Your task to perform on an android device: Search for the new Nike Air Max 270 on Nike.com Image 0: 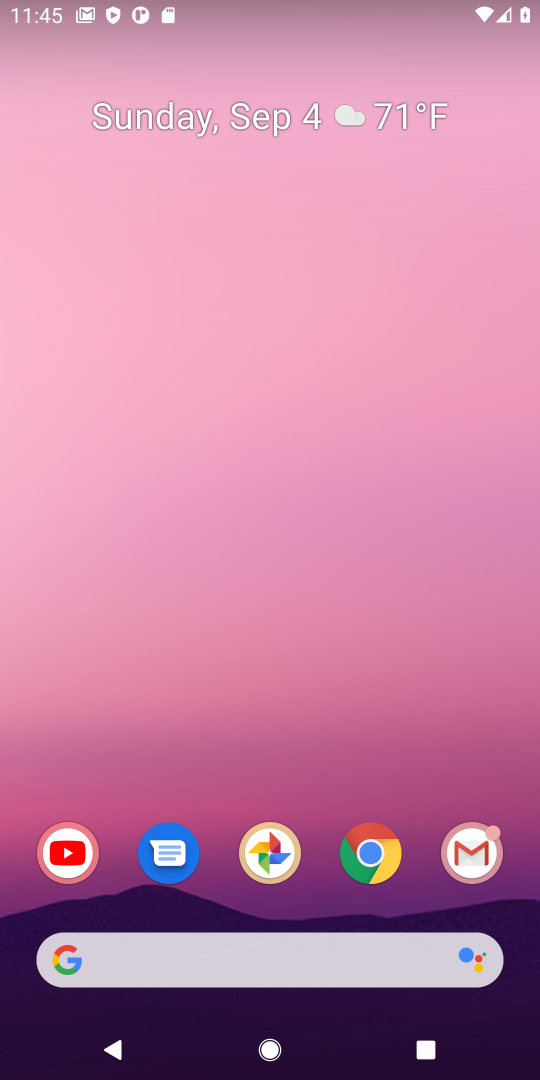
Step 0: click (383, 849)
Your task to perform on an android device: Search for the new Nike Air Max 270 on Nike.com Image 1: 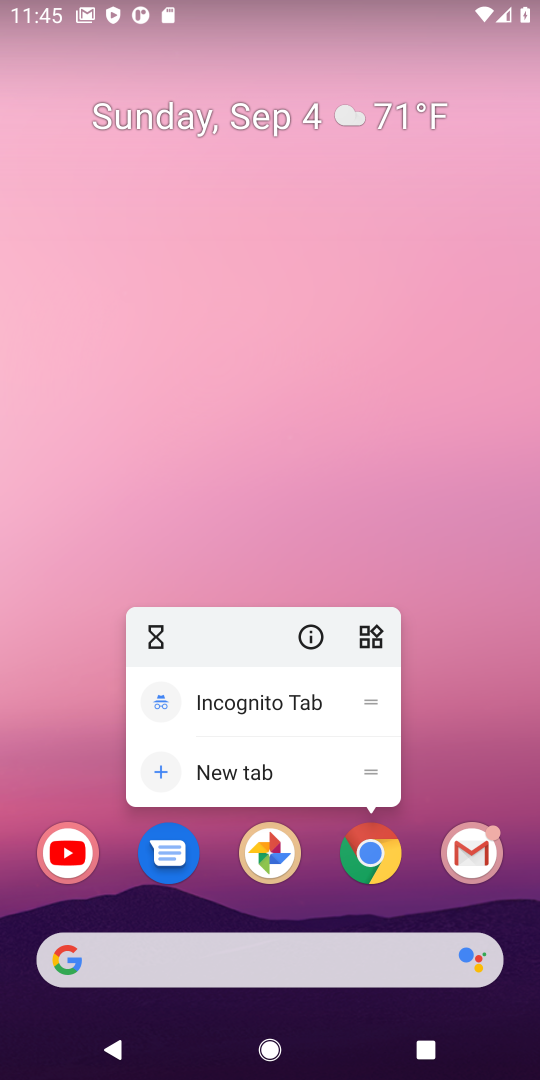
Step 1: click (374, 847)
Your task to perform on an android device: Search for the new Nike Air Max 270 on Nike.com Image 2: 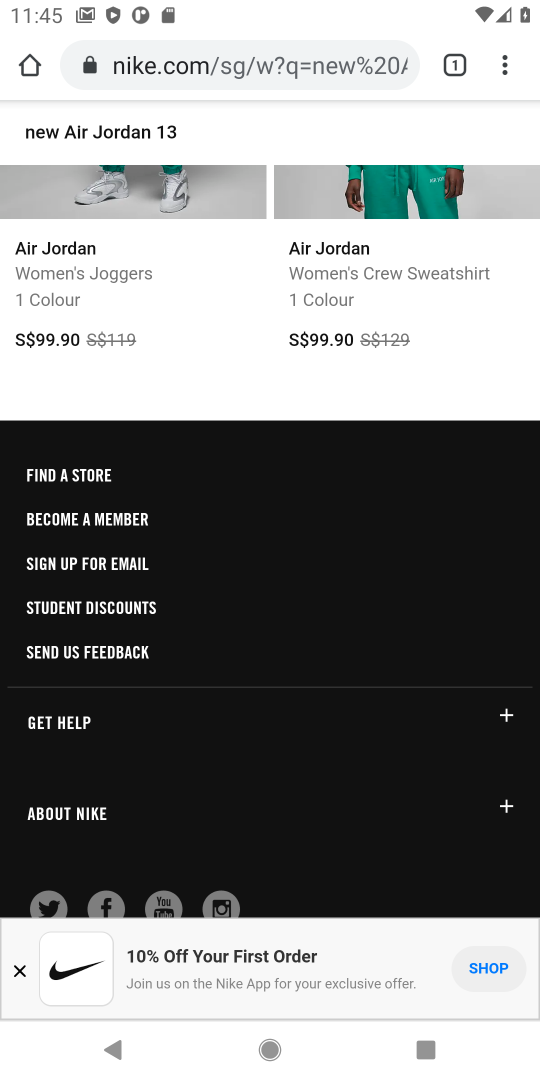
Step 2: click (317, 67)
Your task to perform on an android device: Search for the new Nike Air Max 270 on Nike.com Image 3: 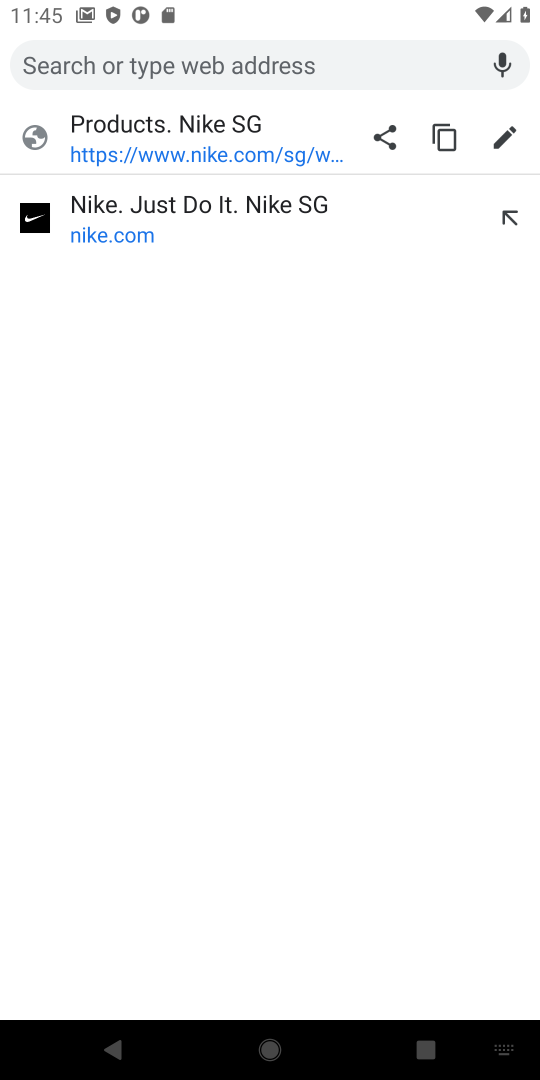
Step 3: type "Nike.com"
Your task to perform on an android device: Search for the new Nike Air Max 270 on Nike.com Image 4: 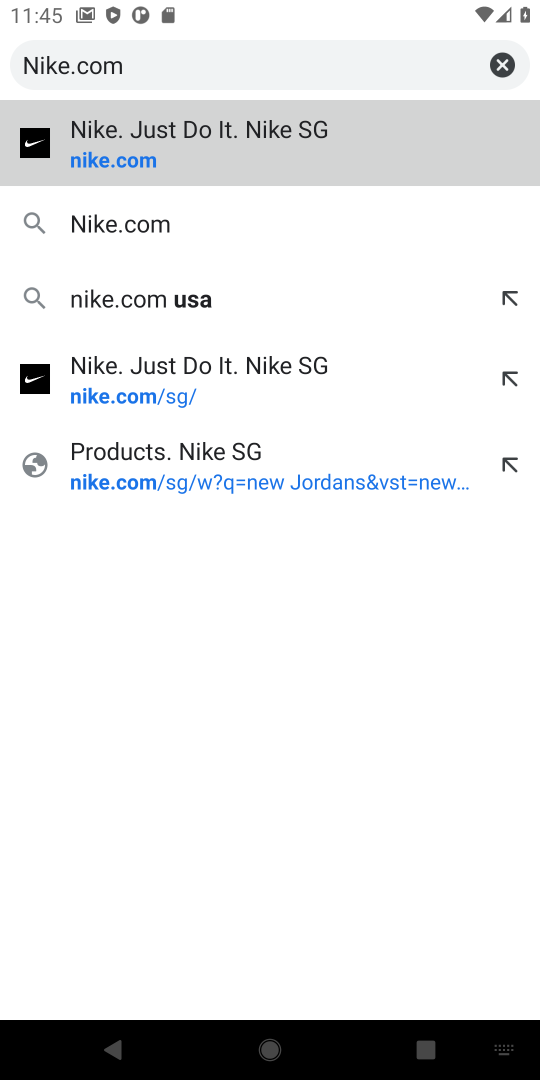
Step 4: press enter
Your task to perform on an android device: Search for the new Nike Air Max 270 on Nike.com Image 5: 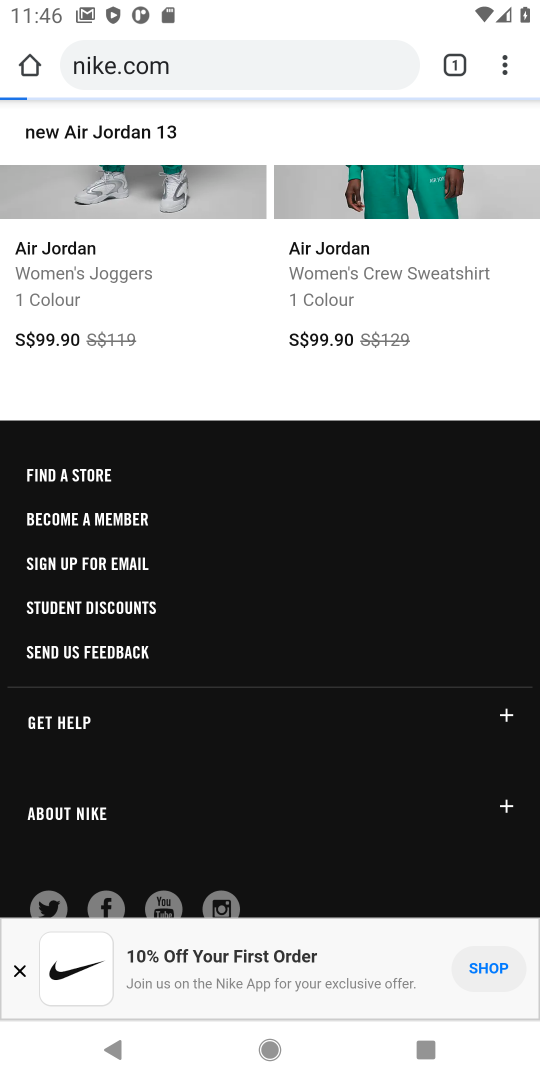
Step 5: drag from (275, 488) to (278, 829)
Your task to perform on an android device: Search for the new Nike Air Max 270 on Nike.com Image 6: 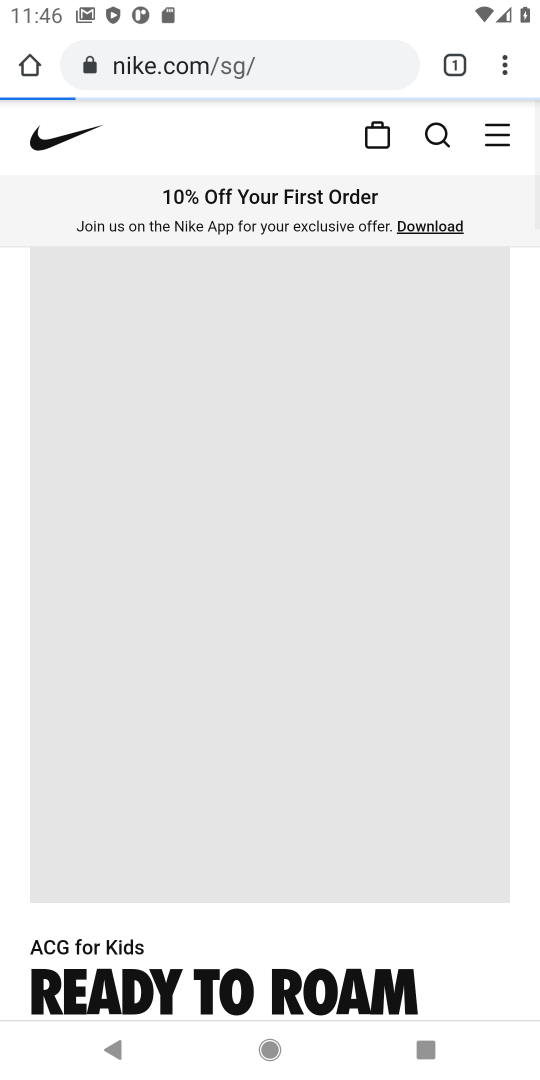
Step 6: drag from (271, 312) to (309, 771)
Your task to perform on an android device: Search for the new Nike Air Max 270 on Nike.com Image 7: 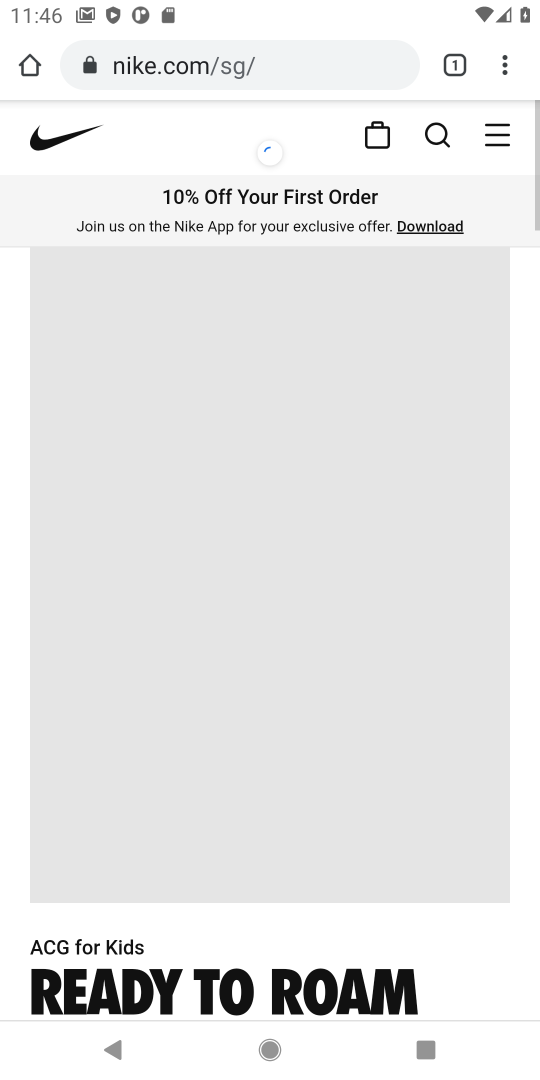
Step 7: click (421, 129)
Your task to perform on an android device: Search for the new Nike Air Max 270 on Nike.com Image 8: 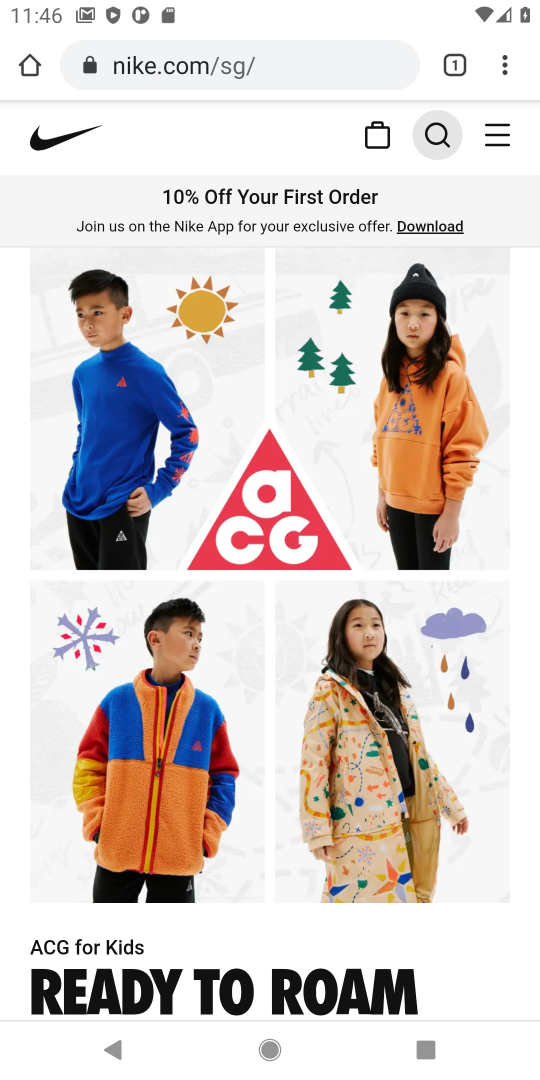
Step 8: click (425, 121)
Your task to perform on an android device: Search for the new Nike Air Max 270 on Nike.com Image 9: 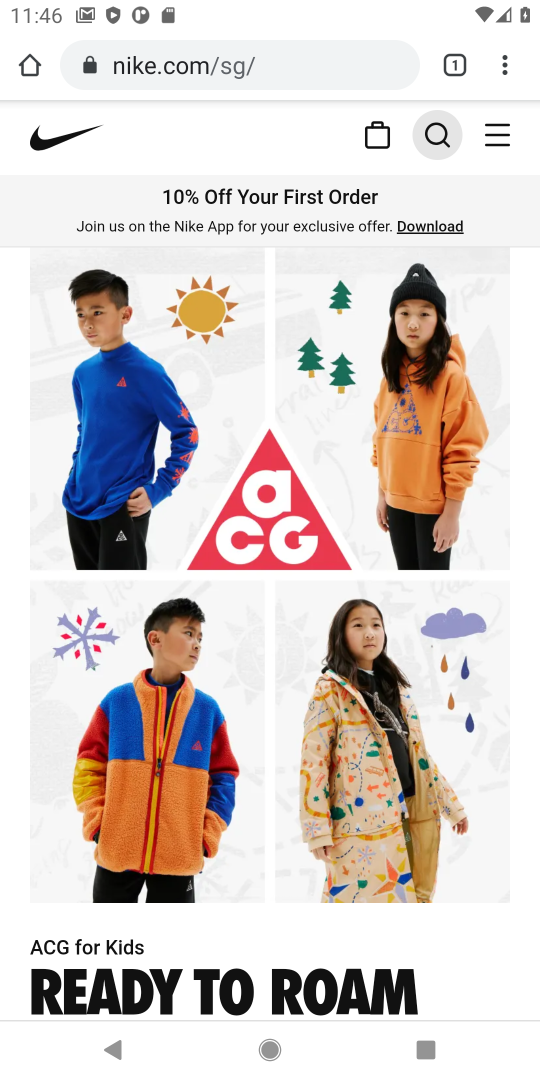
Step 9: click (292, 144)
Your task to perform on an android device: Search for the new Nike Air Max 270 on Nike.com Image 10: 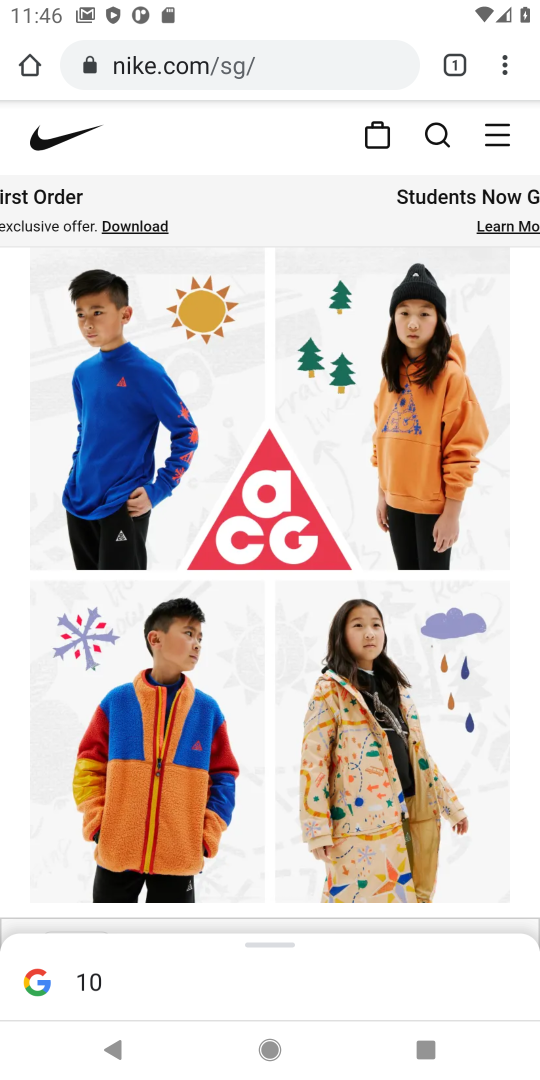
Step 10: click (316, 125)
Your task to perform on an android device: Search for the new Nike Air Max 270 on Nike.com Image 11: 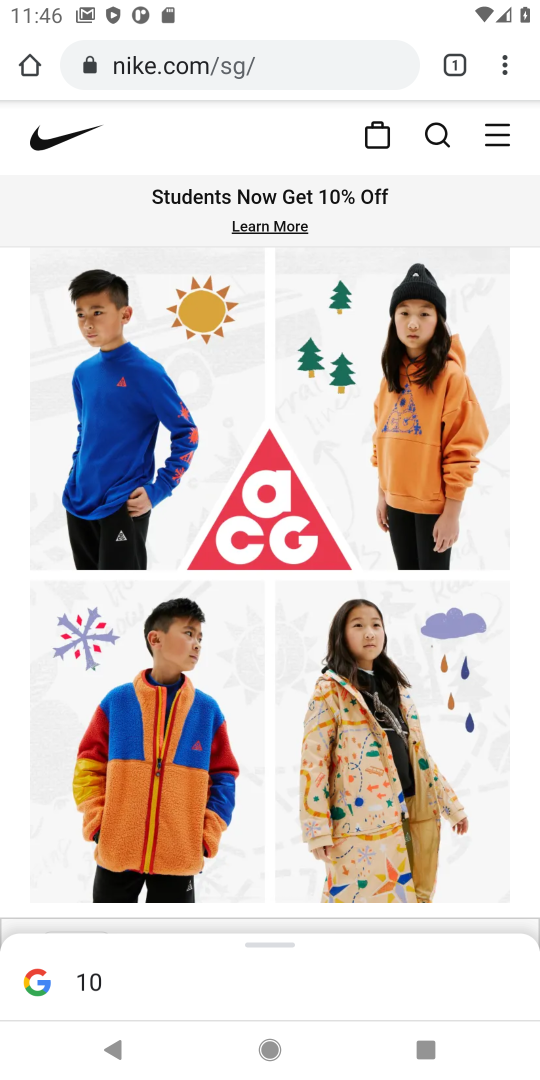
Step 11: click (430, 147)
Your task to perform on an android device: Search for the new Nike Air Max 270 on Nike.com Image 12: 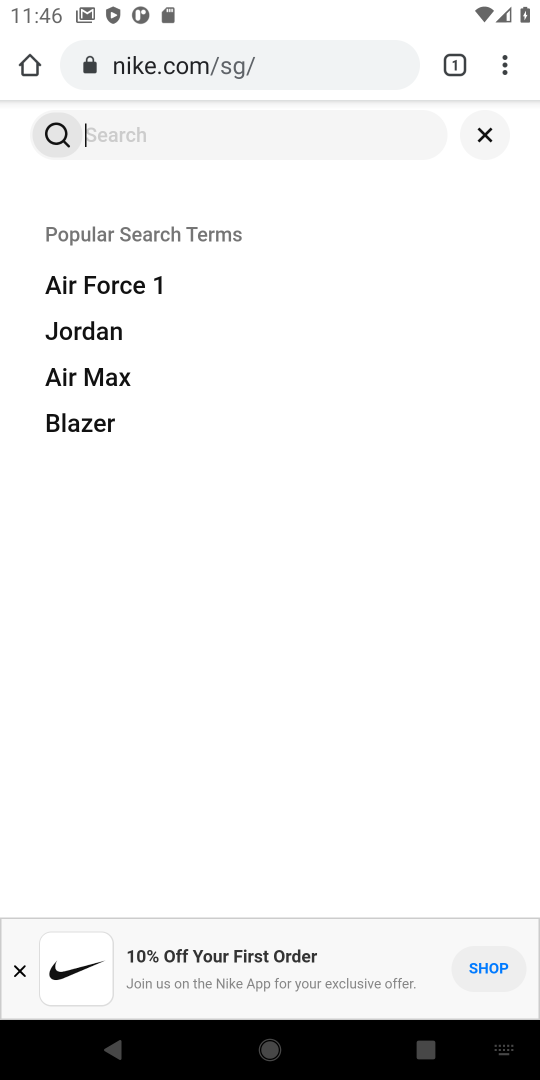
Step 12: type " Air Max 270"
Your task to perform on an android device: Search for the new Nike Air Max 270 on Nike.com Image 13: 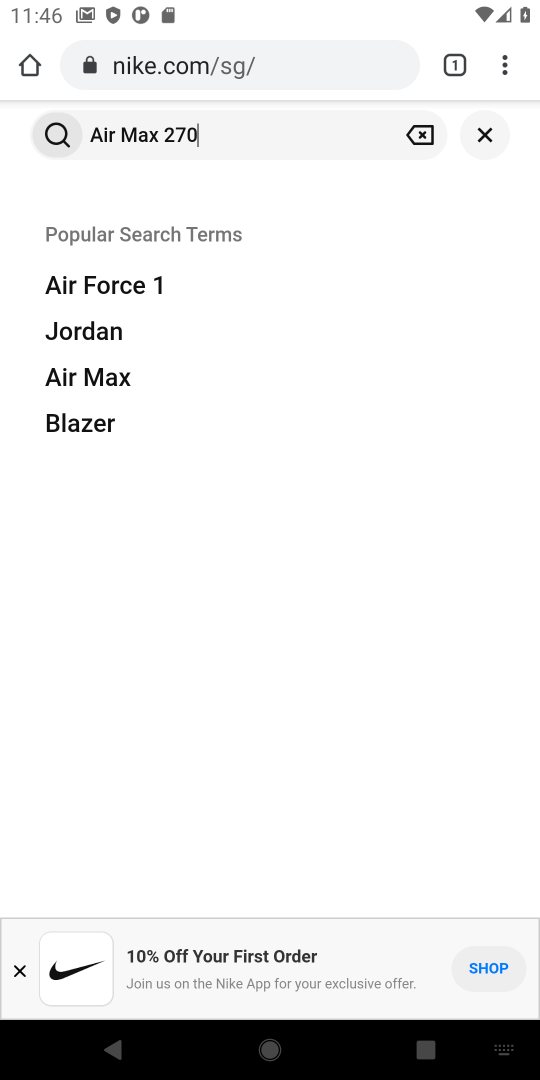
Step 13: press enter
Your task to perform on an android device: Search for the new Nike Air Max 270 on Nike.com Image 14: 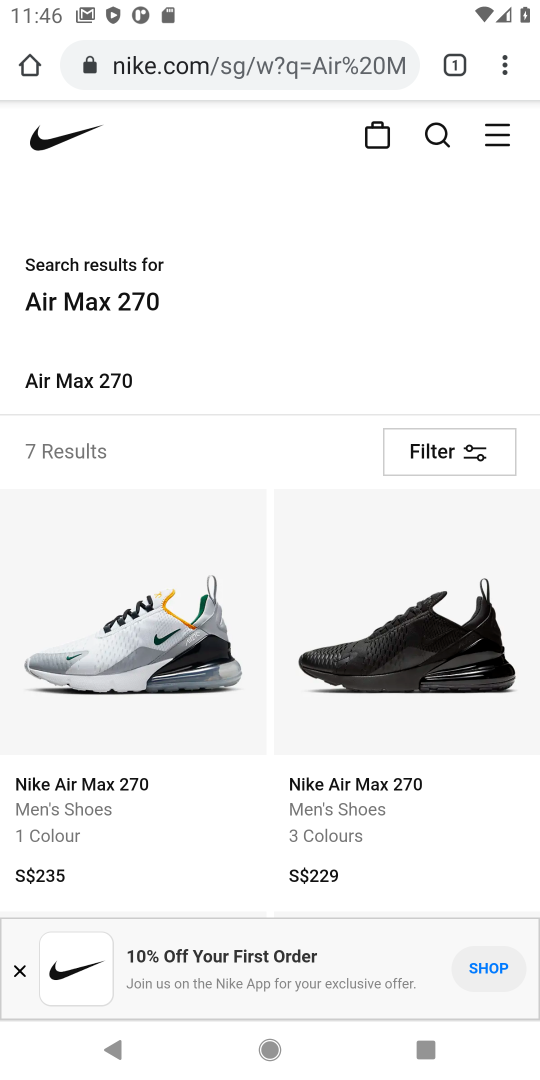
Step 14: task complete